Your task to perform on an android device: Open privacy settings Image 0: 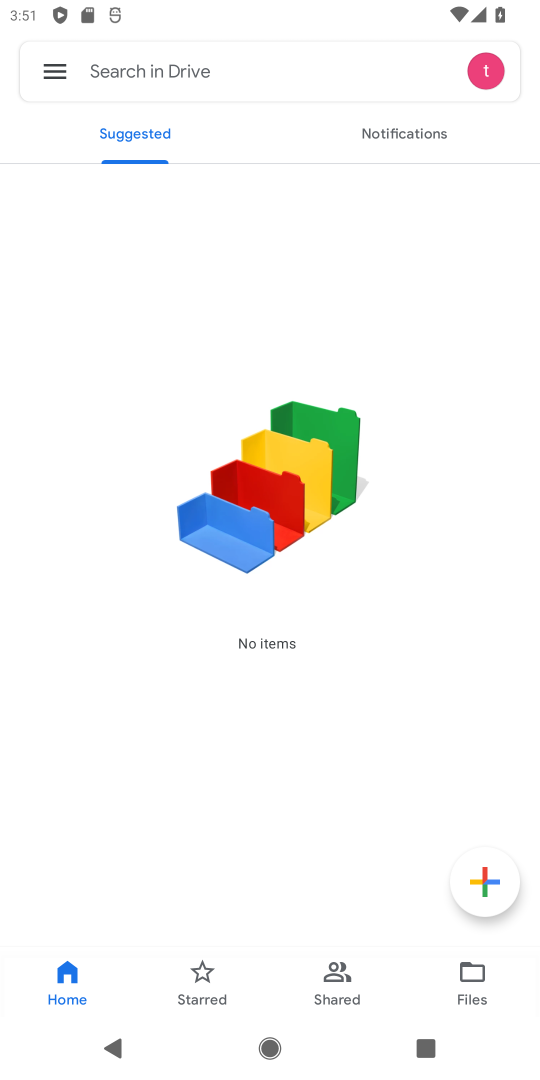
Step 0: press home button
Your task to perform on an android device: Open privacy settings Image 1: 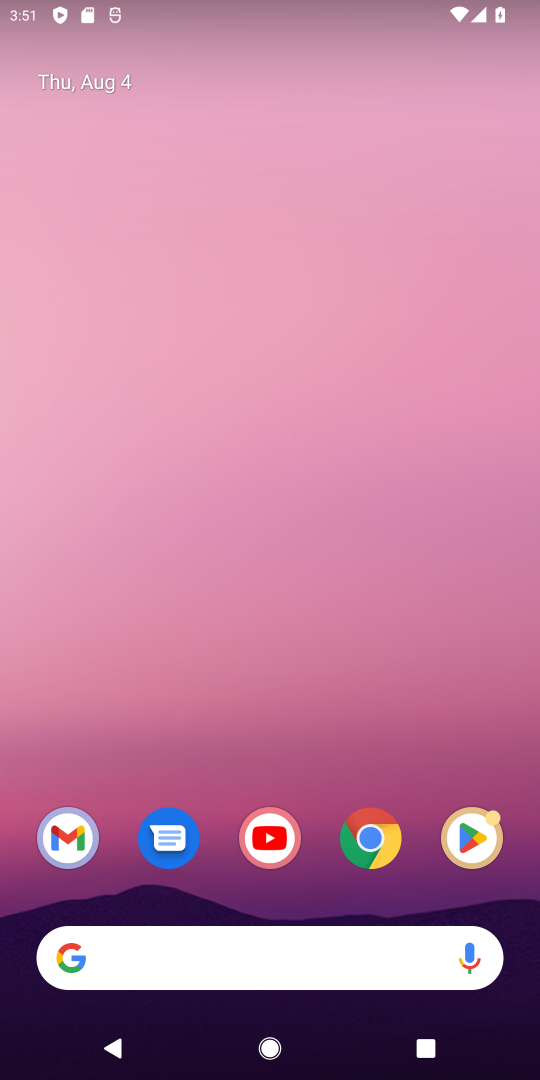
Step 1: drag from (412, 761) to (364, 262)
Your task to perform on an android device: Open privacy settings Image 2: 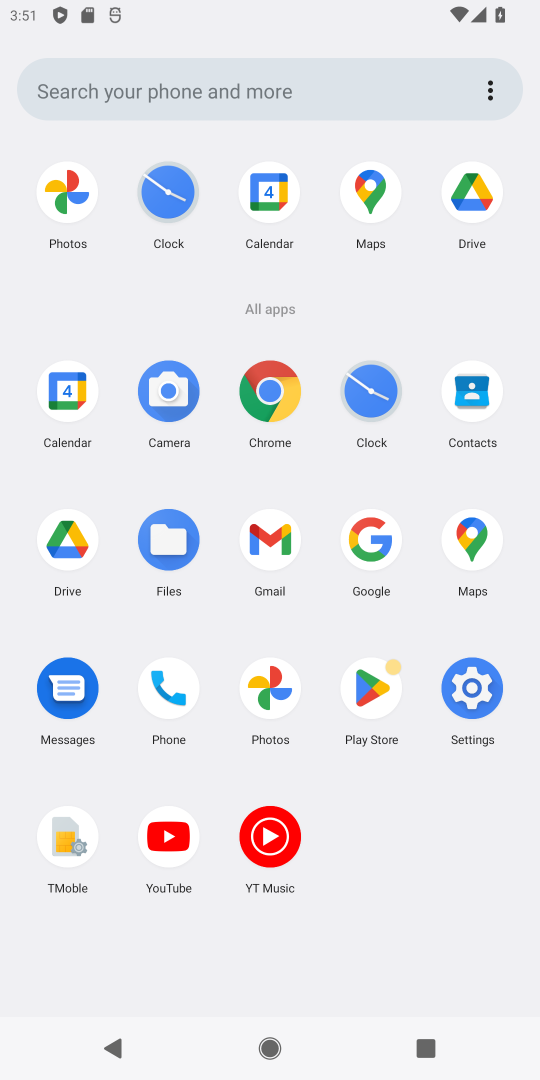
Step 2: click (475, 691)
Your task to perform on an android device: Open privacy settings Image 3: 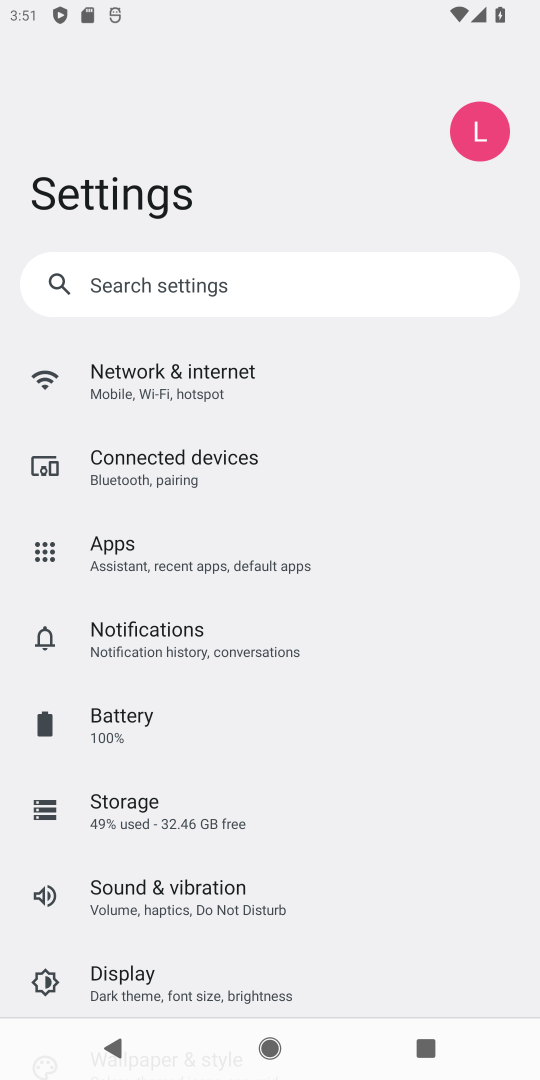
Step 3: drag from (305, 922) to (318, 573)
Your task to perform on an android device: Open privacy settings Image 4: 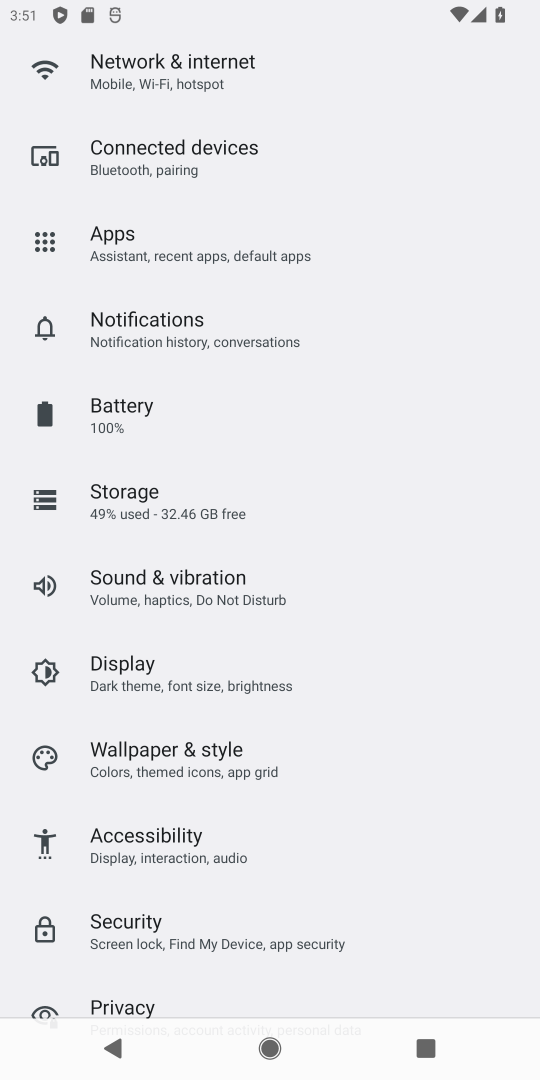
Step 4: click (114, 1004)
Your task to perform on an android device: Open privacy settings Image 5: 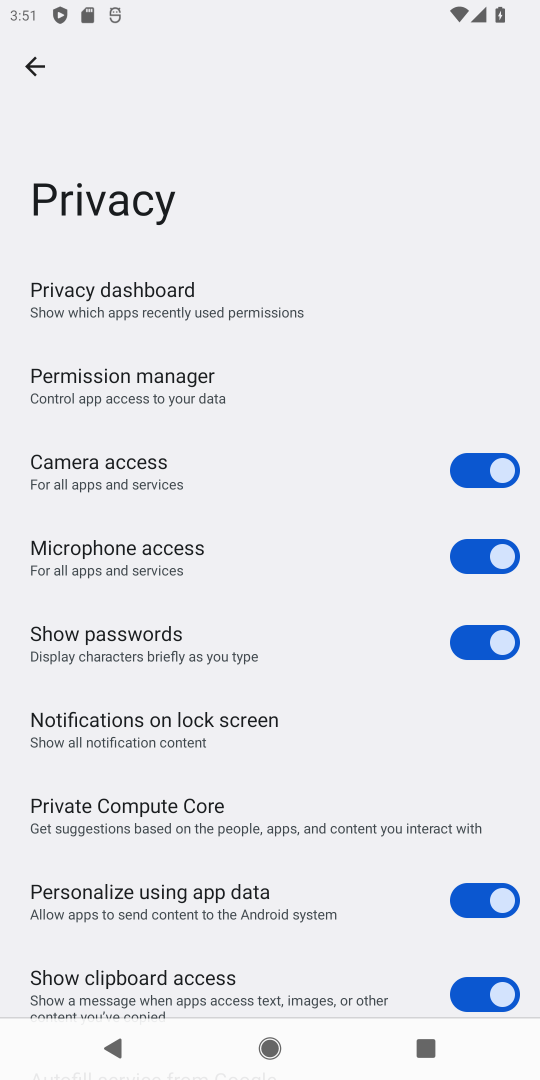
Step 5: task complete